Your task to perform on an android device: Go to location settings Image 0: 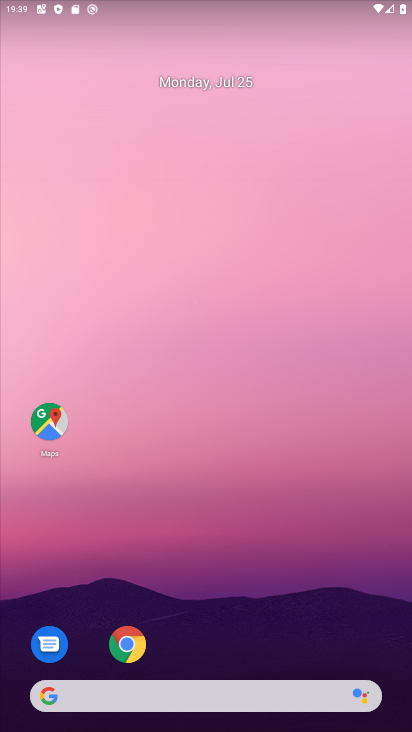
Step 0: drag from (209, 653) to (276, 116)
Your task to perform on an android device: Go to location settings Image 1: 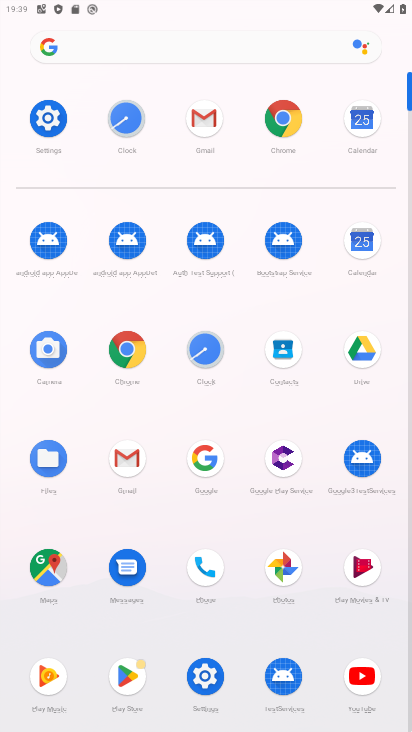
Step 1: click (47, 114)
Your task to perform on an android device: Go to location settings Image 2: 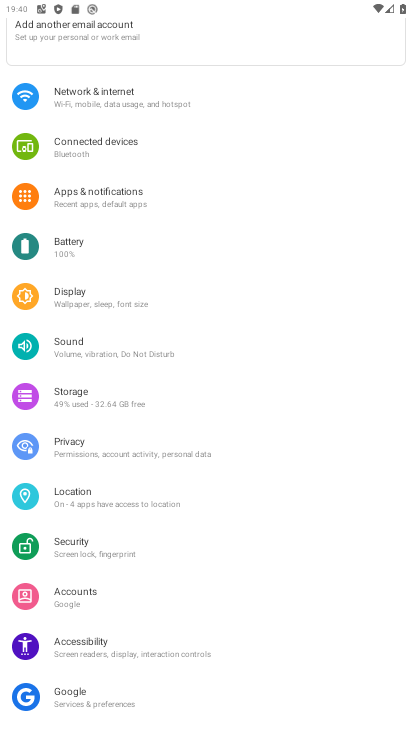
Step 2: click (84, 488)
Your task to perform on an android device: Go to location settings Image 3: 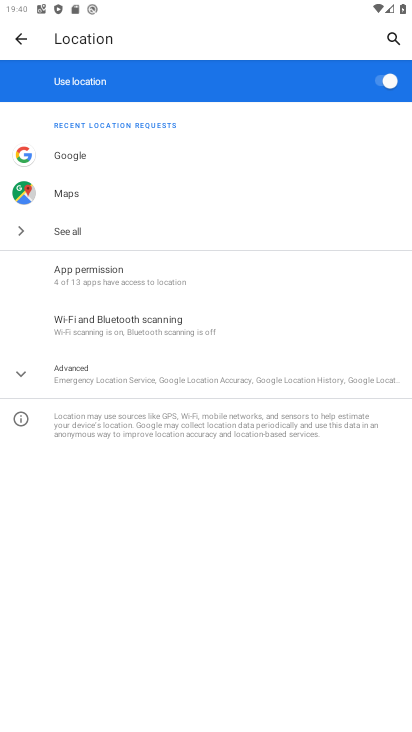
Step 3: click (17, 373)
Your task to perform on an android device: Go to location settings Image 4: 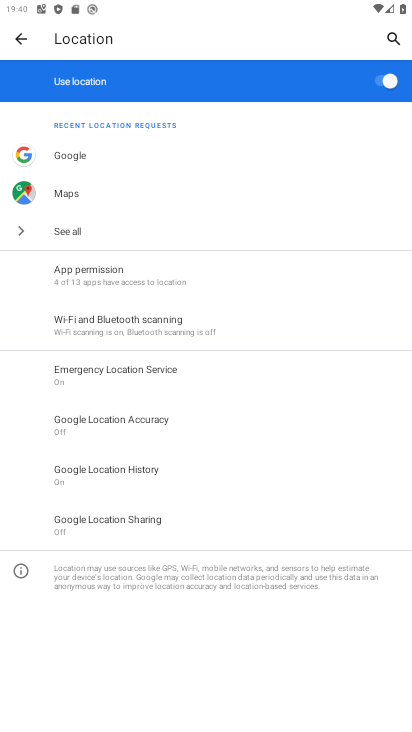
Step 4: task complete